Your task to perform on an android device: uninstall "Viber Messenger" Image 0: 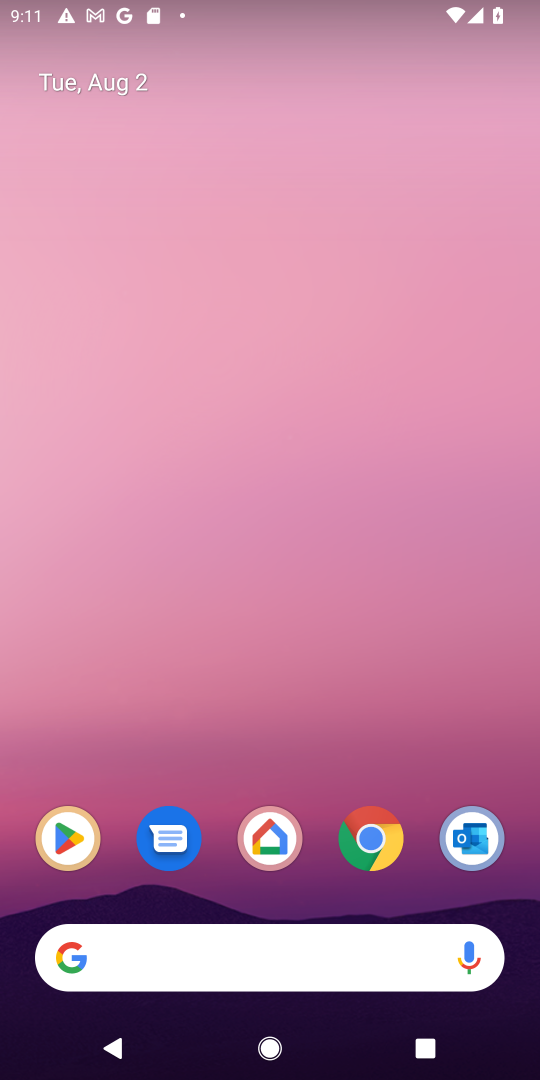
Step 0: drag from (325, 668) to (329, 88)
Your task to perform on an android device: uninstall "Viber Messenger" Image 1: 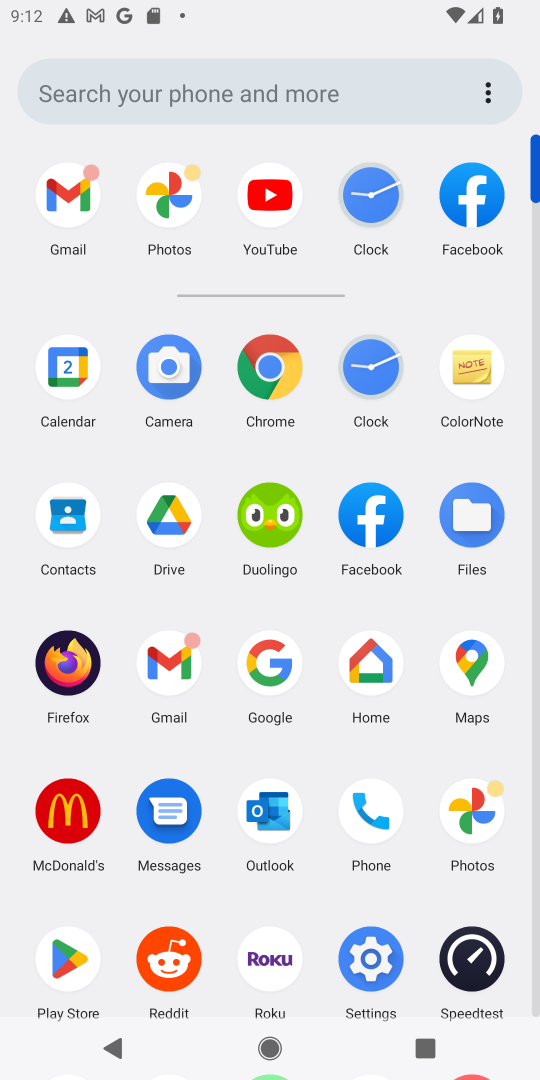
Step 1: click (66, 963)
Your task to perform on an android device: uninstall "Viber Messenger" Image 2: 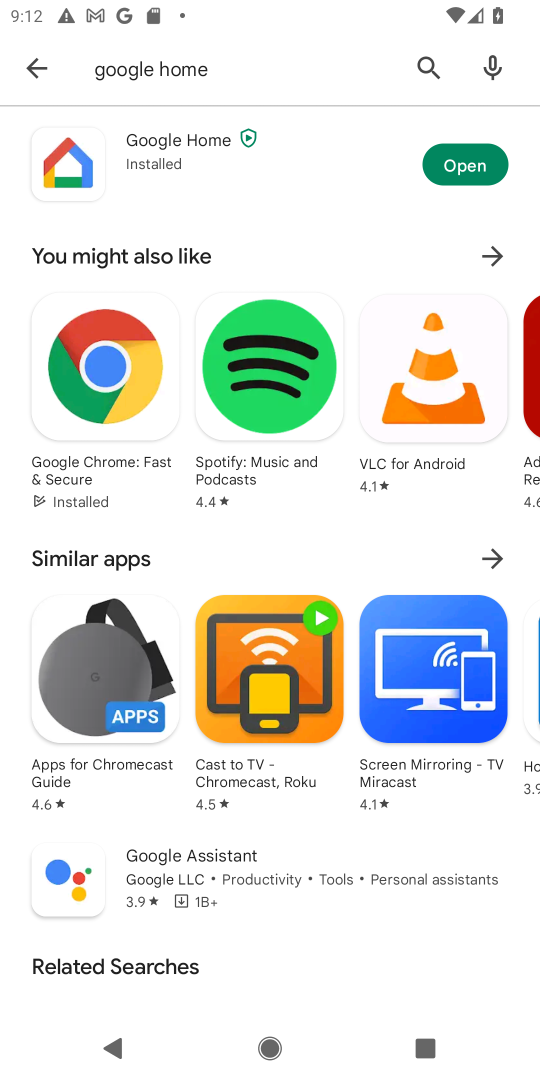
Step 2: click (425, 69)
Your task to perform on an android device: uninstall "Viber Messenger" Image 3: 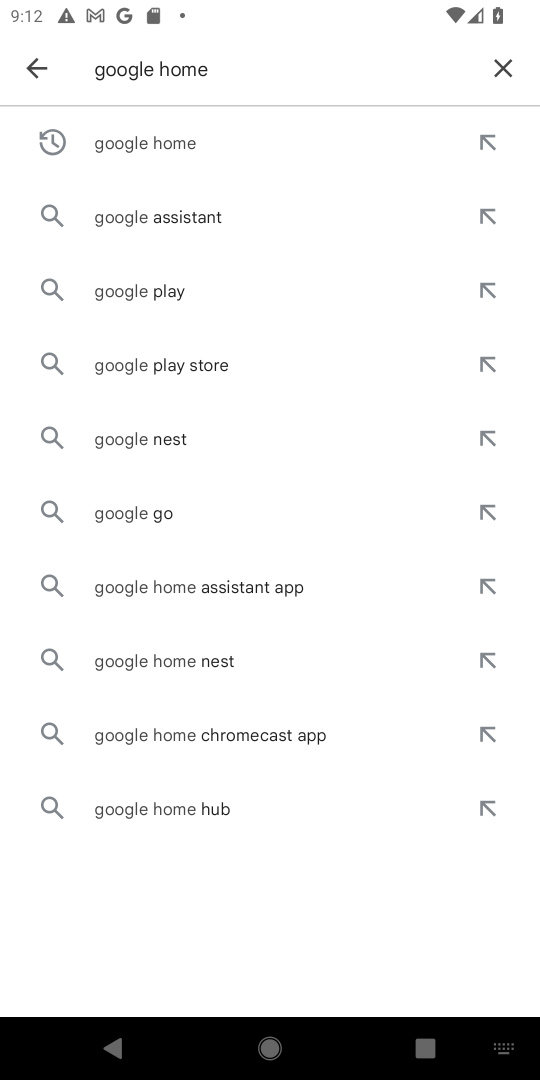
Step 3: click (500, 69)
Your task to perform on an android device: uninstall "Viber Messenger" Image 4: 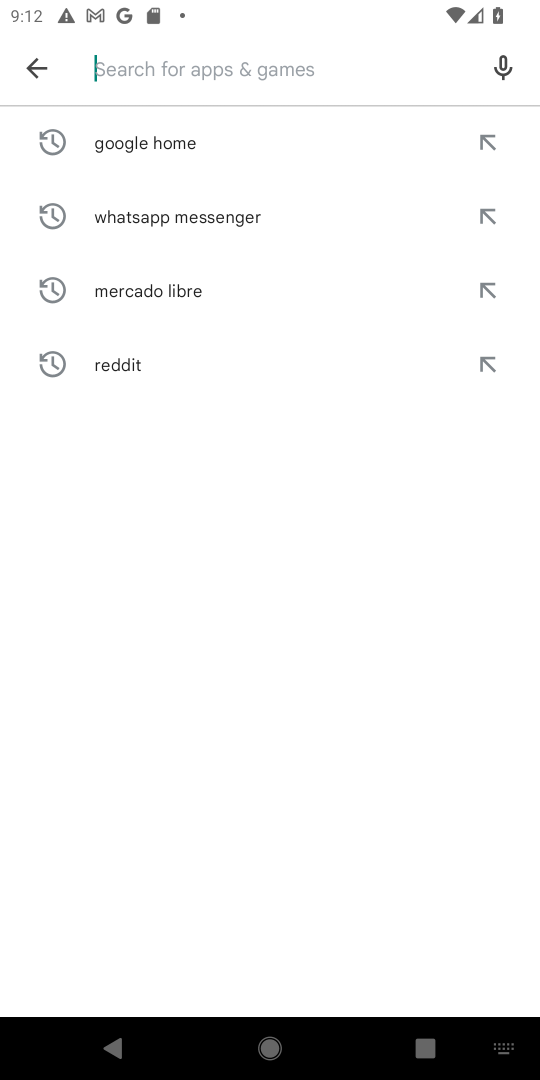
Step 4: click (275, 78)
Your task to perform on an android device: uninstall "Viber Messenger" Image 5: 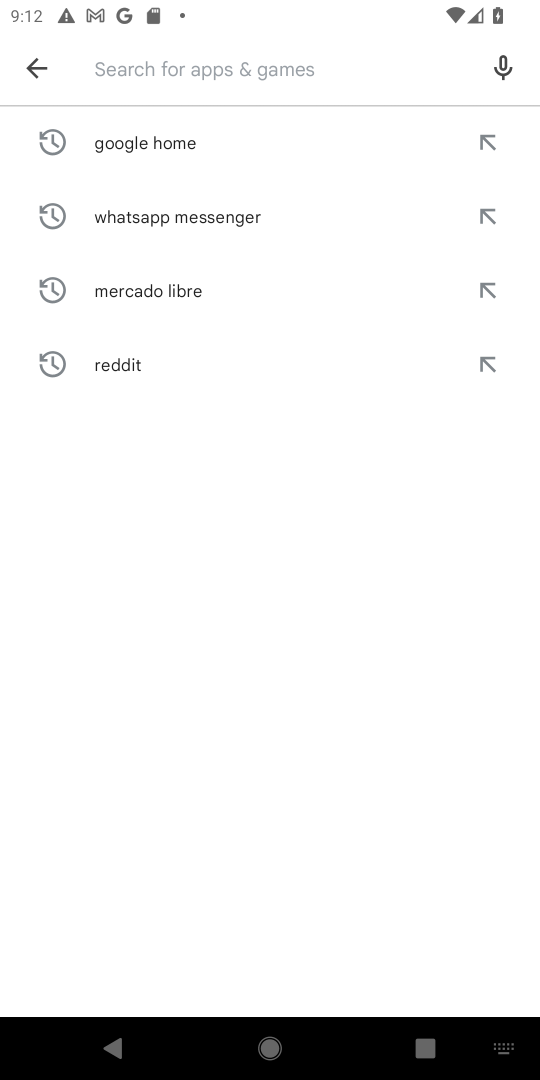
Step 5: type "viber messenger"
Your task to perform on an android device: uninstall "Viber Messenger" Image 6: 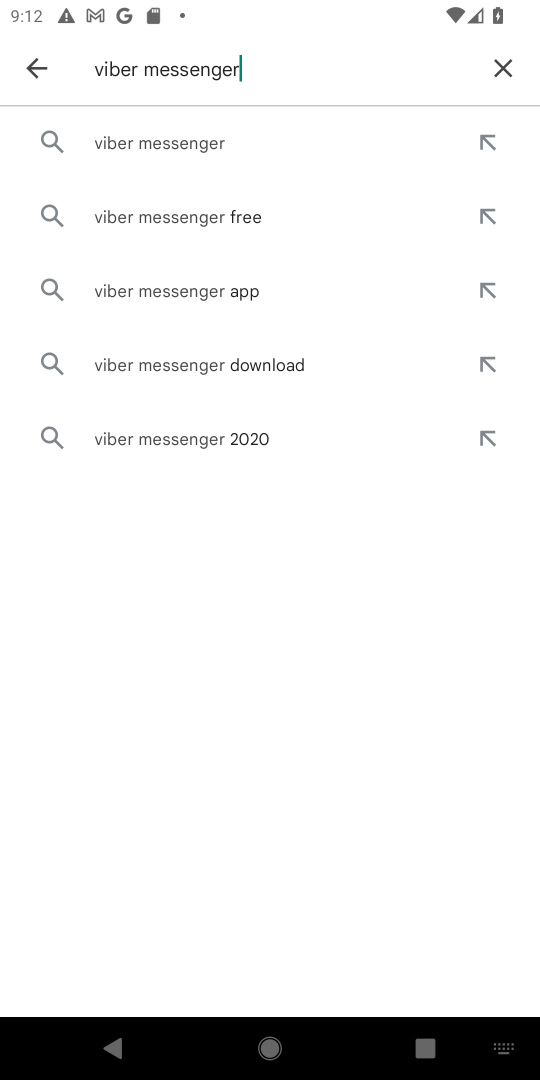
Step 6: click (236, 150)
Your task to perform on an android device: uninstall "Viber Messenger" Image 7: 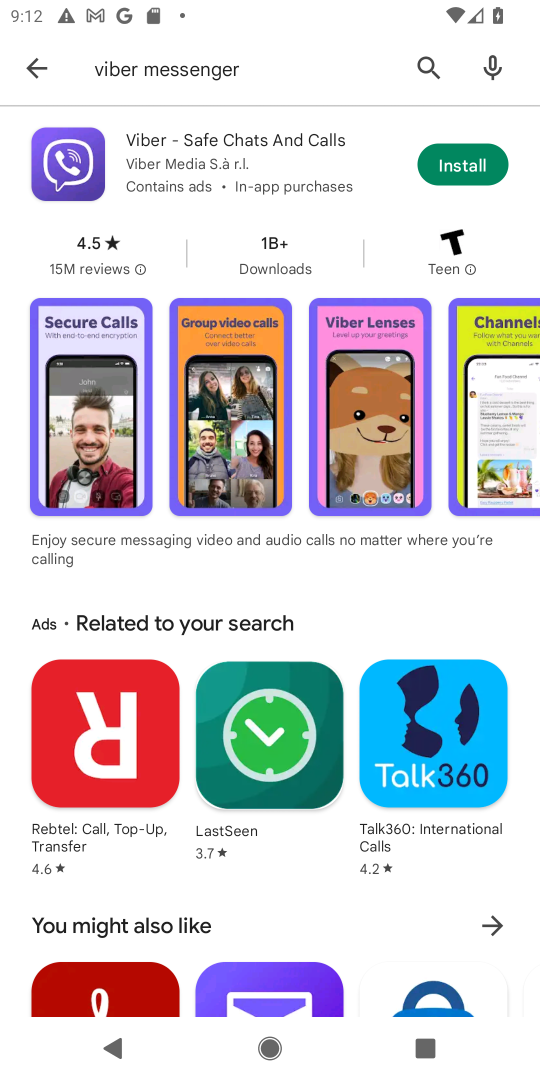
Step 7: task complete